Your task to perform on an android device: Open privacy settings Image 0: 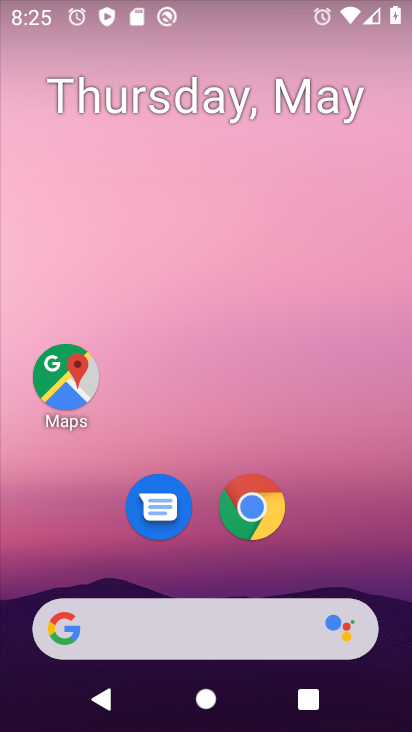
Step 0: drag from (194, 490) to (235, 53)
Your task to perform on an android device: Open privacy settings Image 1: 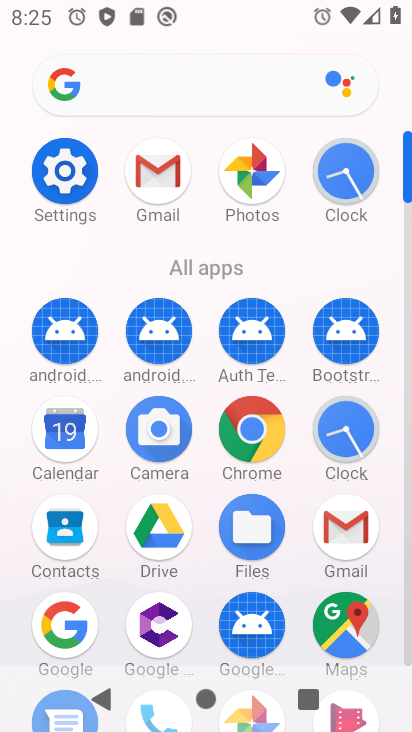
Step 1: click (79, 181)
Your task to perform on an android device: Open privacy settings Image 2: 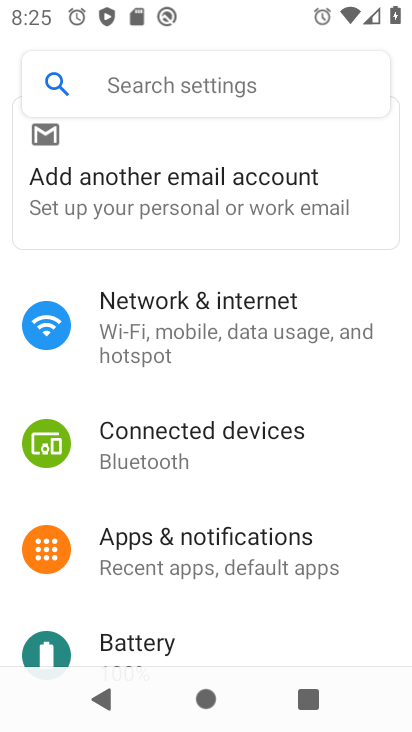
Step 2: drag from (217, 625) to (259, 10)
Your task to perform on an android device: Open privacy settings Image 3: 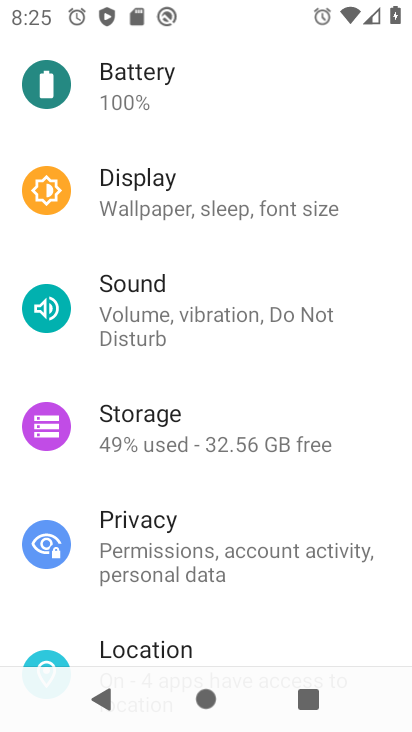
Step 3: click (147, 538)
Your task to perform on an android device: Open privacy settings Image 4: 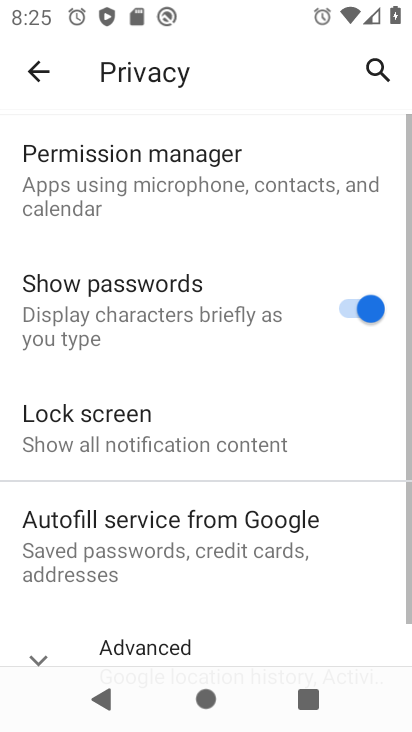
Step 4: task complete